Your task to perform on an android device: When is my next appointment? Image 0: 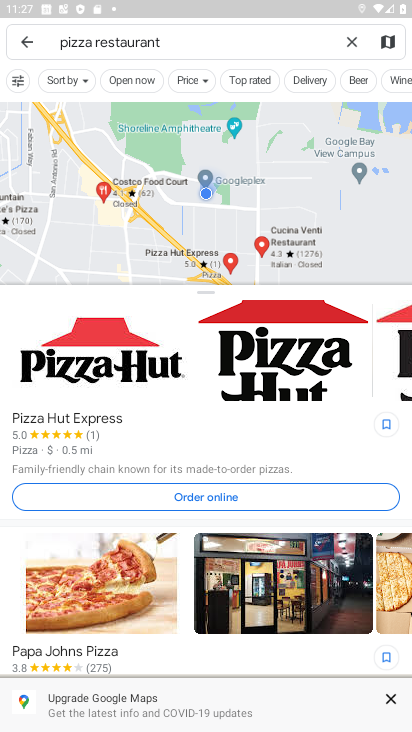
Step 0: press home button
Your task to perform on an android device: When is my next appointment? Image 1: 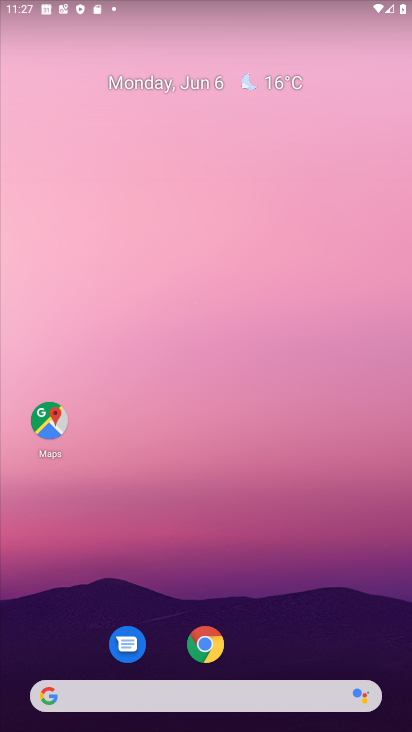
Step 1: drag from (311, 640) to (199, 116)
Your task to perform on an android device: When is my next appointment? Image 2: 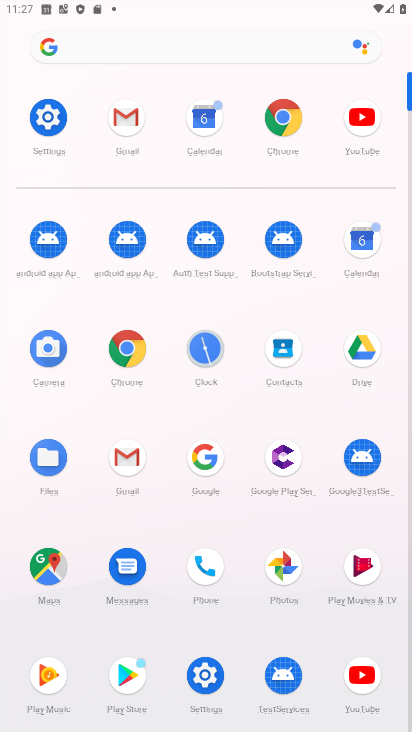
Step 2: click (363, 242)
Your task to perform on an android device: When is my next appointment? Image 3: 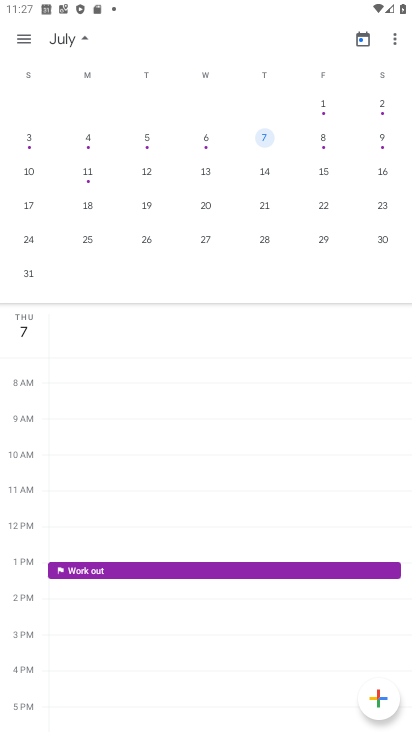
Step 3: click (19, 39)
Your task to perform on an android device: When is my next appointment? Image 4: 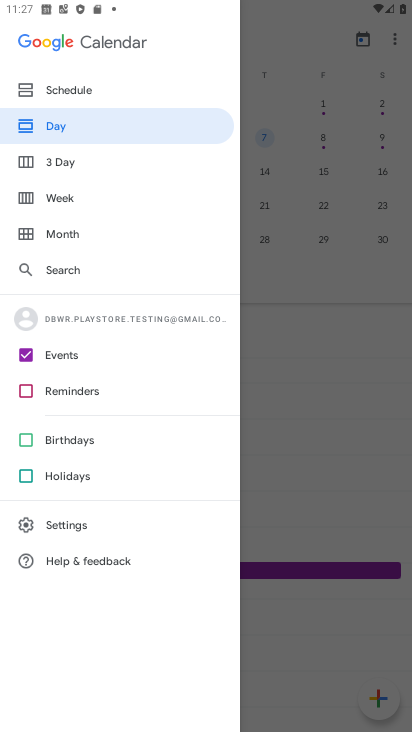
Step 4: click (63, 84)
Your task to perform on an android device: When is my next appointment? Image 5: 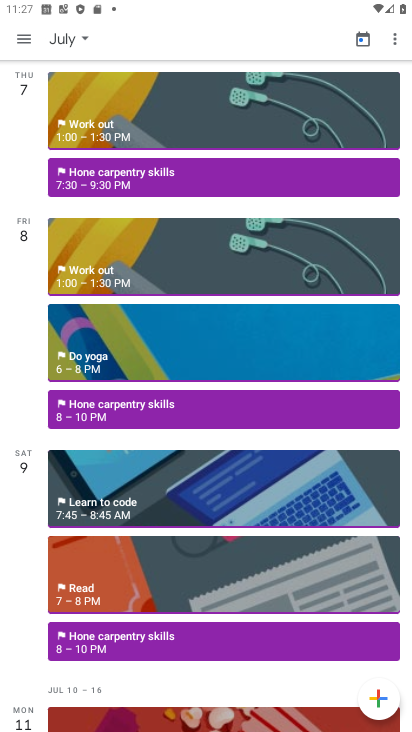
Step 5: task complete